Your task to perform on an android device: open wifi settings Image 0: 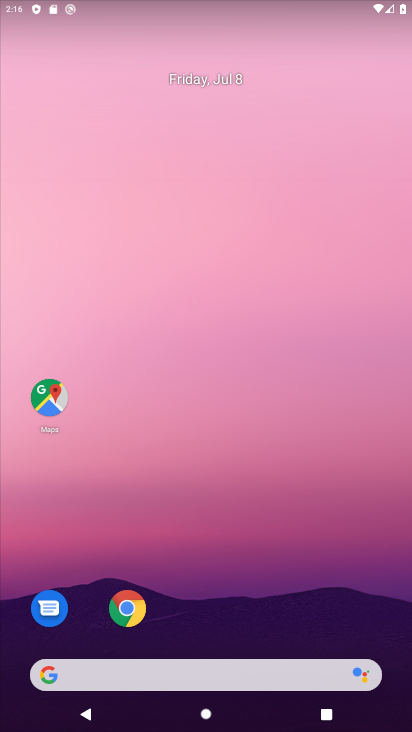
Step 0: drag from (189, 653) to (288, 23)
Your task to perform on an android device: open wifi settings Image 1: 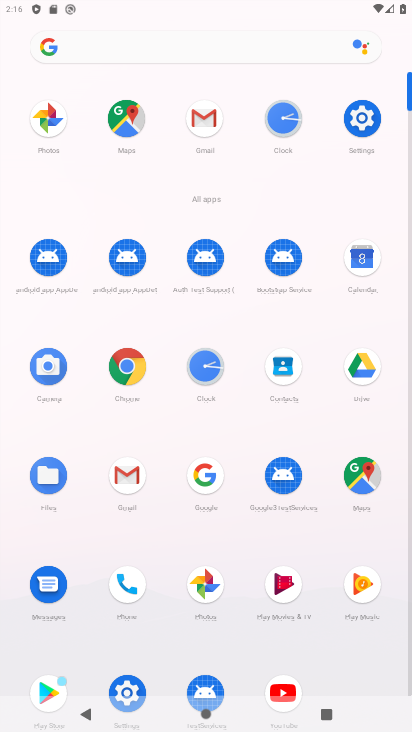
Step 1: drag from (131, 655) to (175, 405)
Your task to perform on an android device: open wifi settings Image 2: 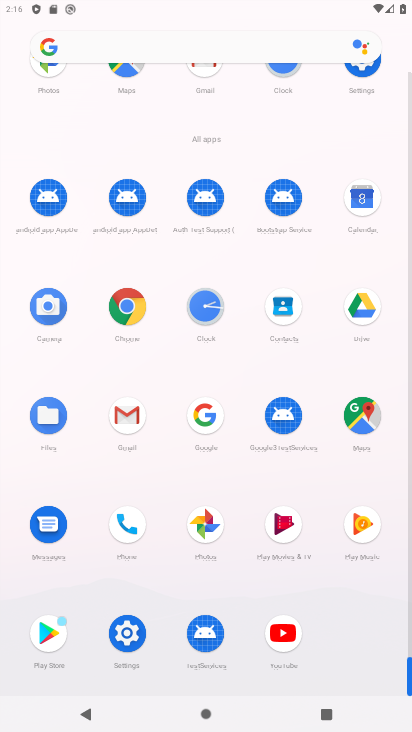
Step 2: click (133, 639)
Your task to perform on an android device: open wifi settings Image 3: 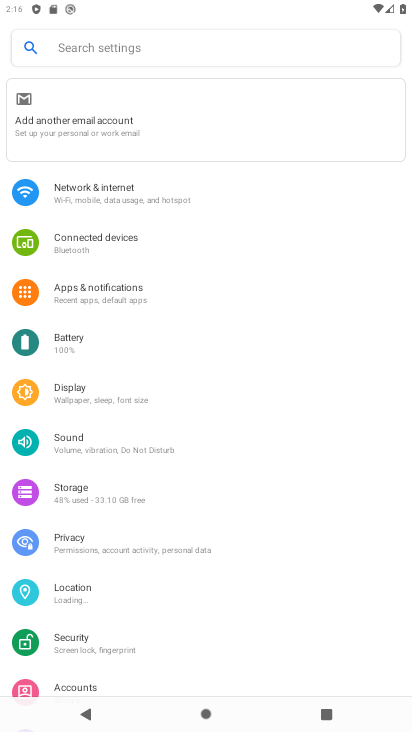
Step 3: click (144, 197)
Your task to perform on an android device: open wifi settings Image 4: 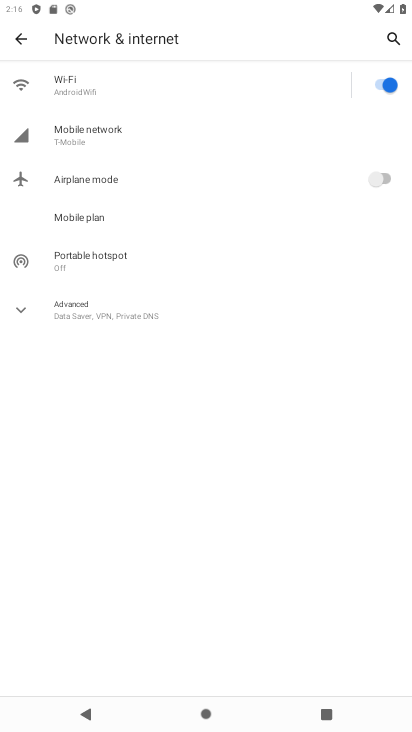
Step 4: click (180, 101)
Your task to perform on an android device: open wifi settings Image 5: 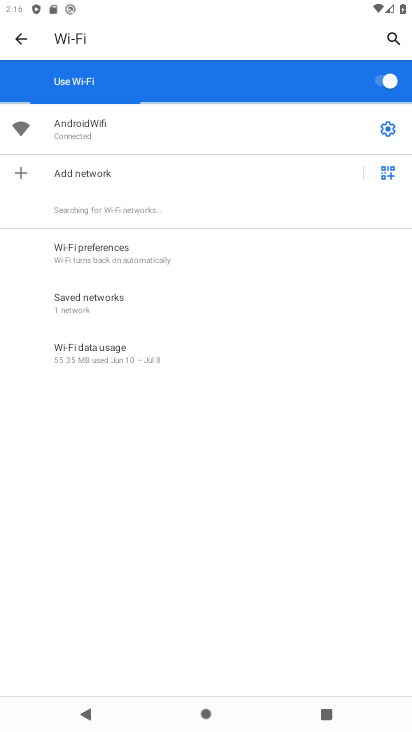
Step 5: task complete